Your task to perform on an android device: Go to CNN.com Image 0: 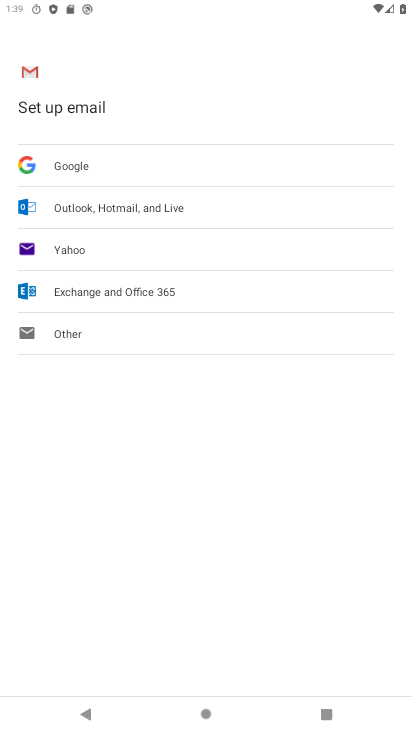
Step 0: press home button
Your task to perform on an android device: Go to CNN.com Image 1: 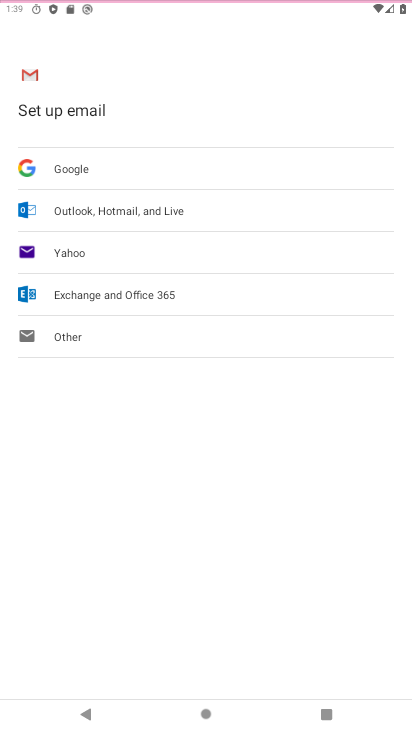
Step 1: press home button
Your task to perform on an android device: Go to CNN.com Image 2: 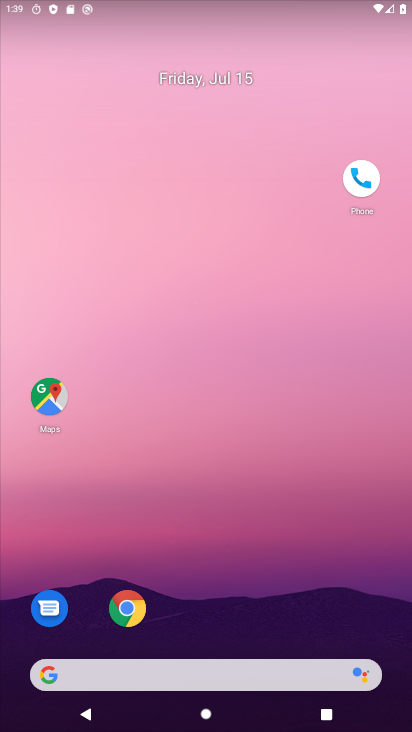
Step 2: drag from (196, 628) to (273, 96)
Your task to perform on an android device: Go to CNN.com Image 3: 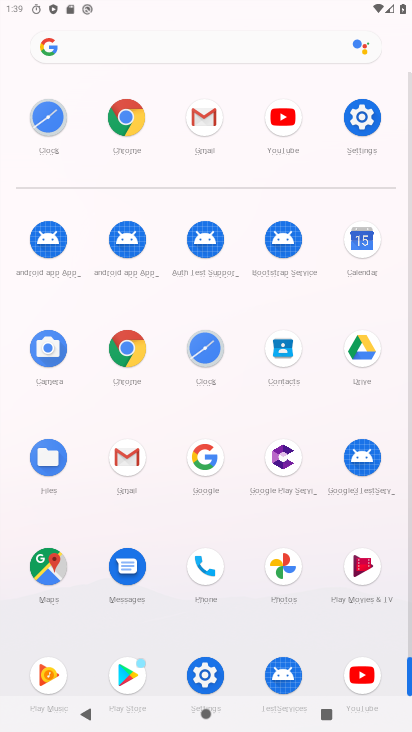
Step 3: click (200, 45)
Your task to perform on an android device: Go to CNN.com Image 4: 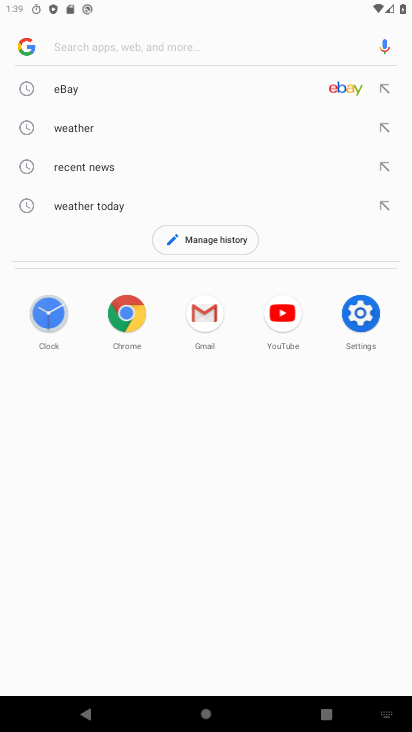
Step 4: type "cnn.com"
Your task to perform on an android device: Go to CNN.com Image 5: 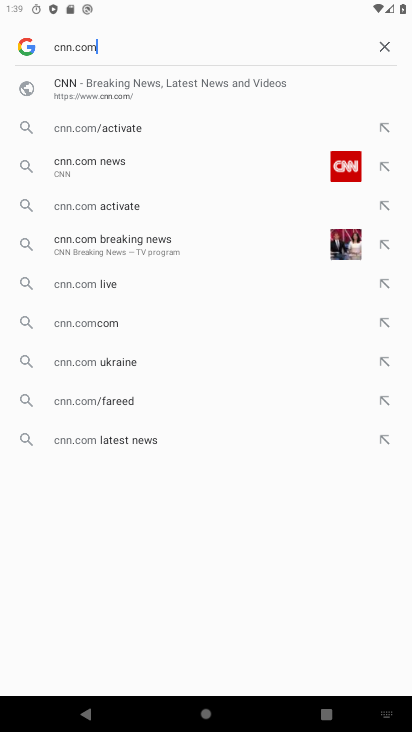
Step 5: click (61, 92)
Your task to perform on an android device: Go to CNN.com Image 6: 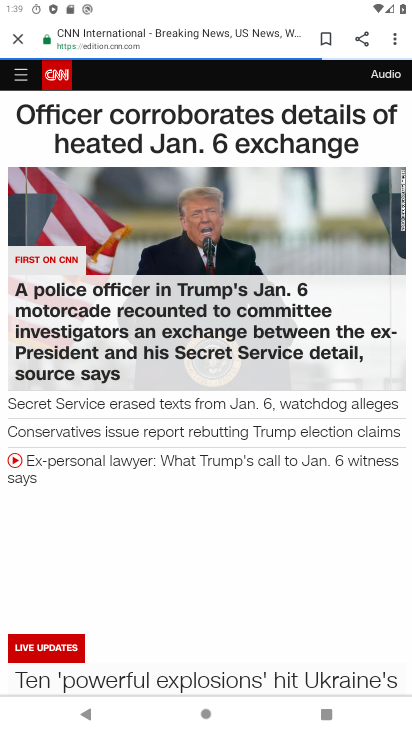
Step 6: task complete